Your task to perform on an android device: turn on improve location accuracy Image 0: 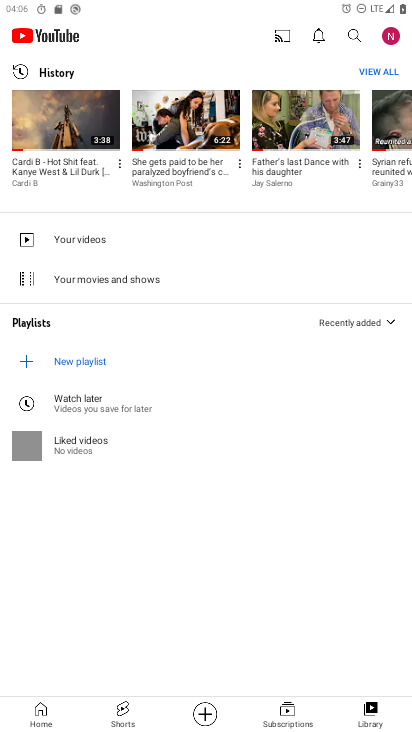
Step 0: press home button
Your task to perform on an android device: turn on improve location accuracy Image 1: 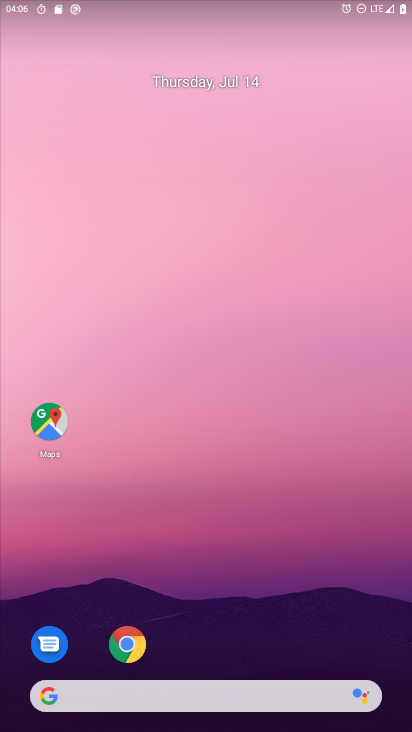
Step 1: drag from (267, 624) to (187, 55)
Your task to perform on an android device: turn on improve location accuracy Image 2: 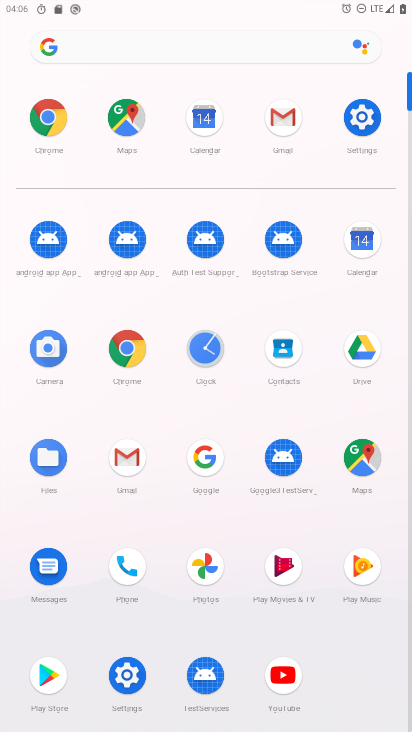
Step 2: click (366, 117)
Your task to perform on an android device: turn on improve location accuracy Image 3: 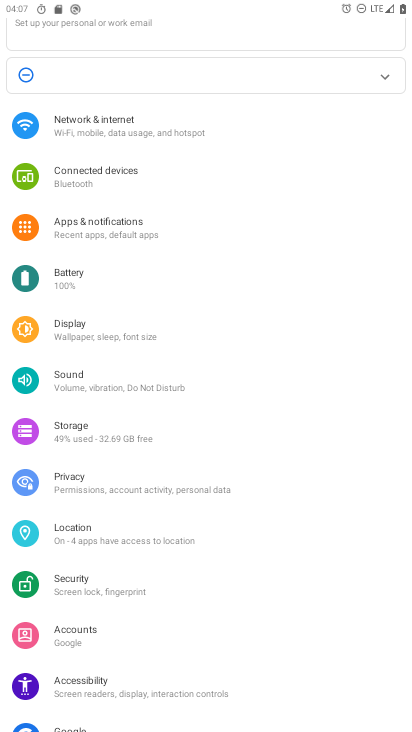
Step 3: click (86, 528)
Your task to perform on an android device: turn on improve location accuracy Image 4: 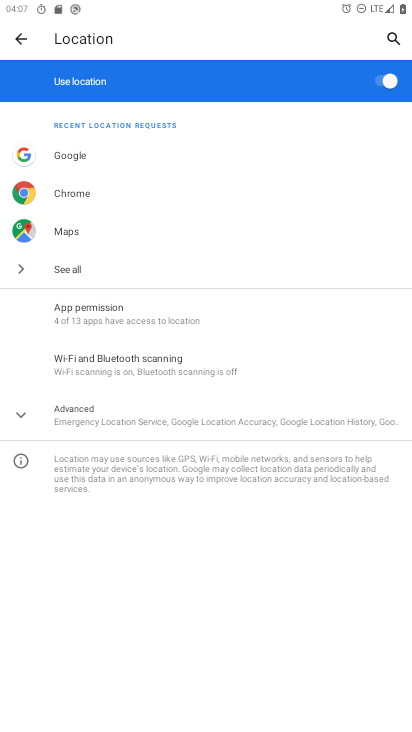
Step 4: click (146, 420)
Your task to perform on an android device: turn on improve location accuracy Image 5: 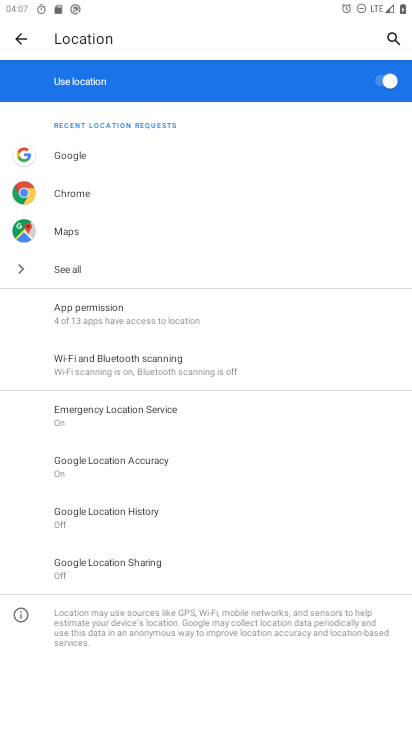
Step 5: click (153, 462)
Your task to perform on an android device: turn on improve location accuracy Image 6: 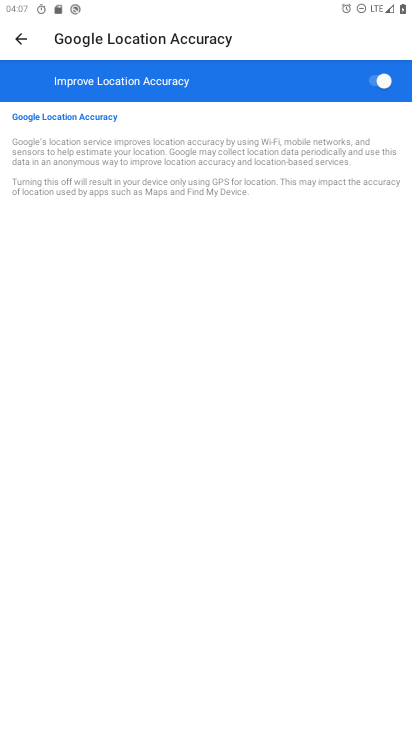
Step 6: task complete